Your task to perform on an android device: turn on airplane mode Image 0: 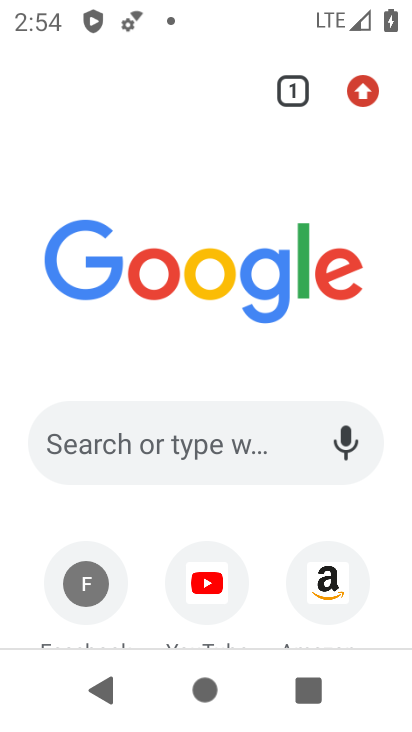
Step 0: press home button
Your task to perform on an android device: turn on airplane mode Image 1: 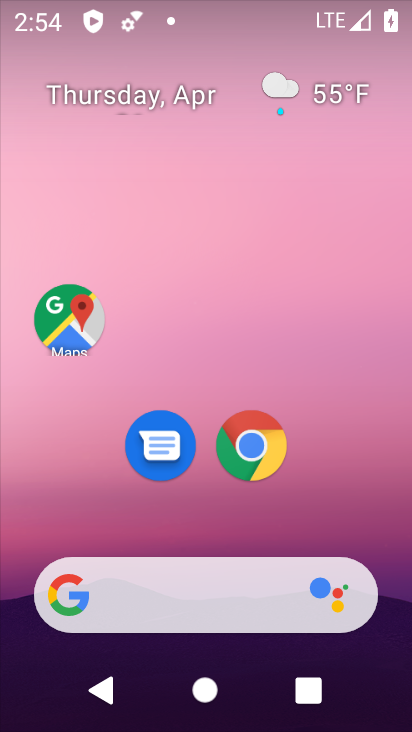
Step 1: drag from (324, 486) to (388, 49)
Your task to perform on an android device: turn on airplane mode Image 2: 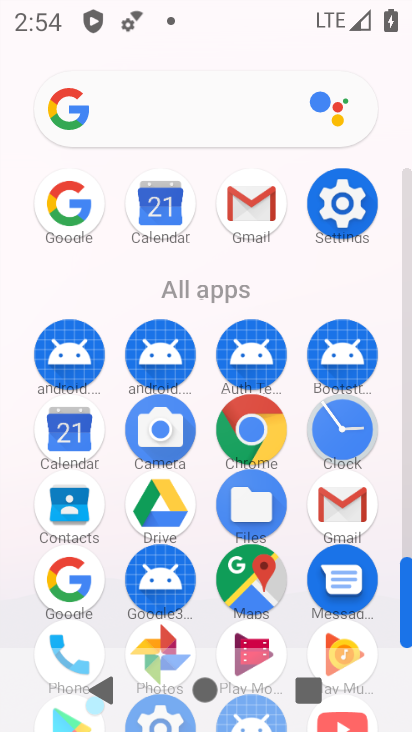
Step 2: click (343, 208)
Your task to perform on an android device: turn on airplane mode Image 3: 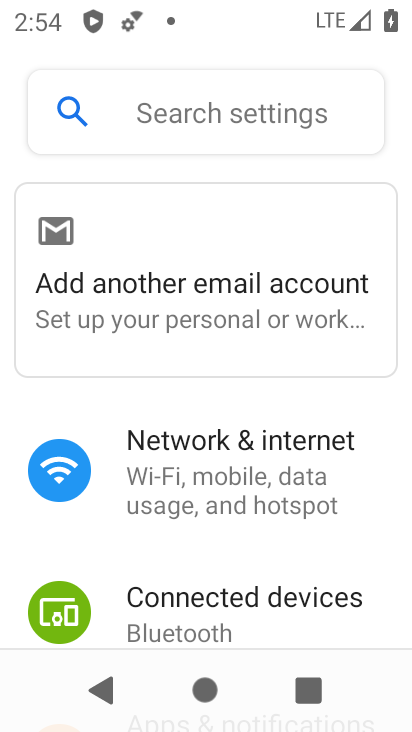
Step 3: click (272, 442)
Your task to perform on an android device: turn on airplane mode Image 4: 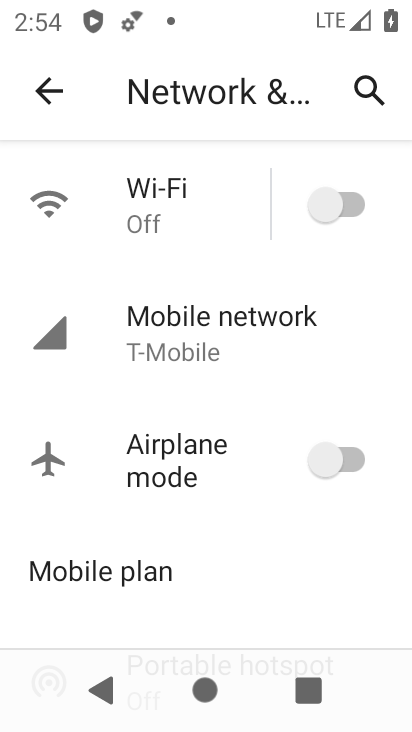
Step 4: click (359, 457)
Your task to perform on an android device: turn on airplane mode Image 5: 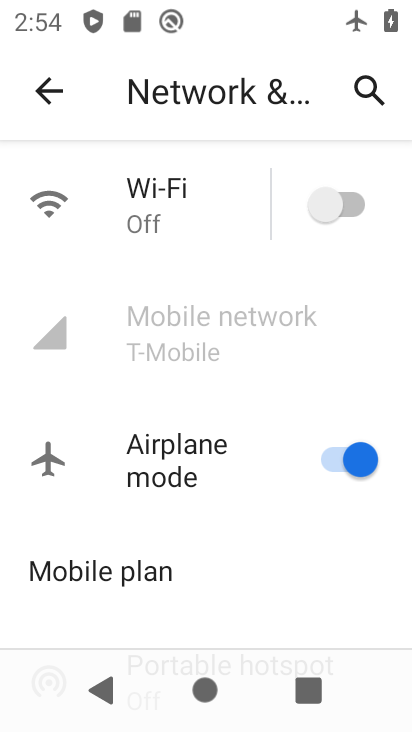
Step 5: task complete